Your task to perform on an android device: change the clock display to show seconds Image 0: 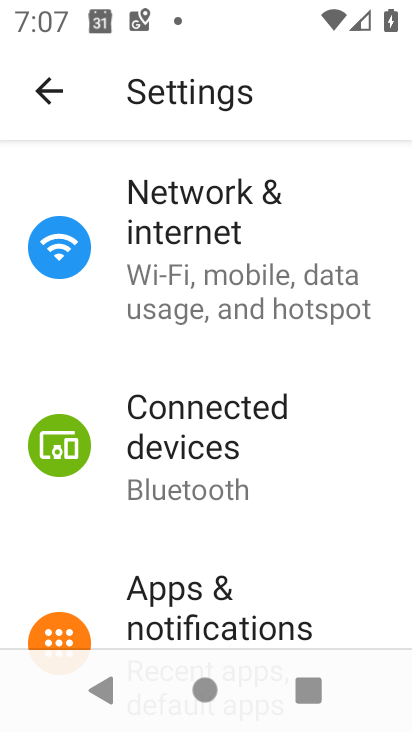
Step 0: press home button
Your task to perform on an android device: change the clock display to show seconds Image 1: 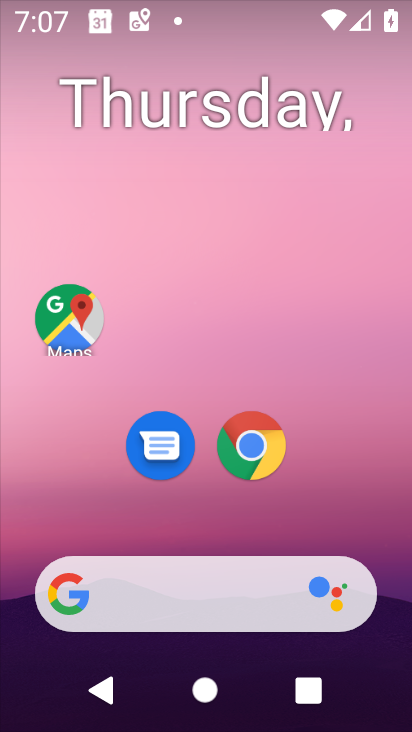
Step 1: drag from (340, 496) to (303, 5)
Your task to perform on an android device: change the clock display to show seconds Image 2: 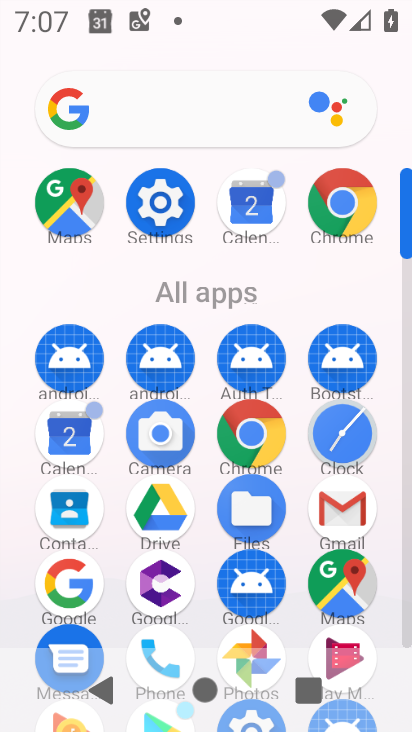
Step 2: click (324, 448)
Your task to perform on an android device: change the clock display to show seconds Image 3: 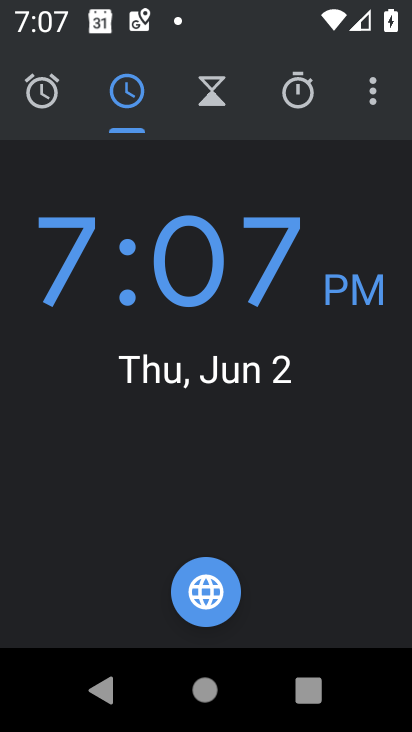
Step 3: click (371, 89)
Your task to perform on an android device: change the clock display to show seconds Image 4: 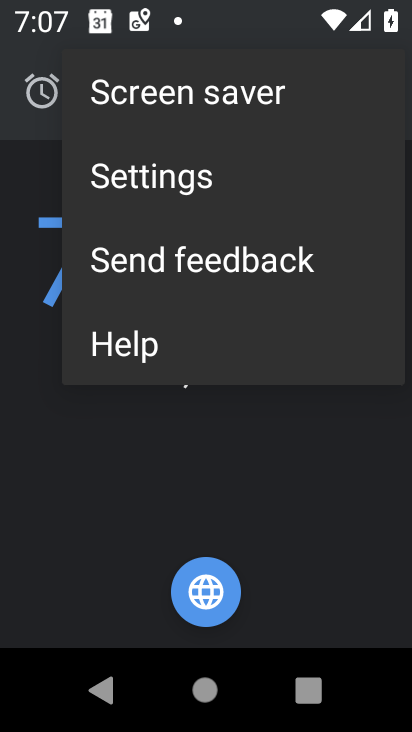
Step 4: click (246, 163)
Your task to perform on an android device: change the clock display to show seconds Image 5: 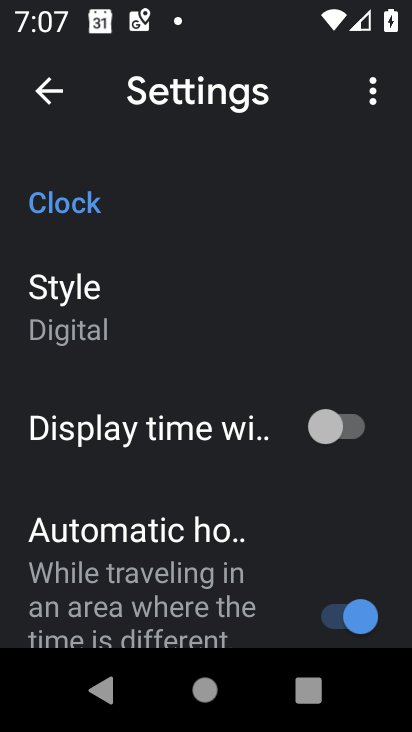
Step 5: click (352, 428)
Your task to perform on an android device: change the clock display to show seconds Image 6: 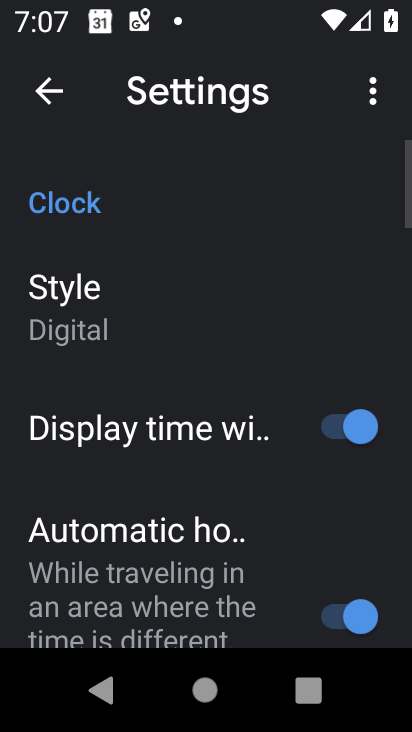
Step 6: task complete